Your task to perform on an android device: Go to Google maps Image 0: 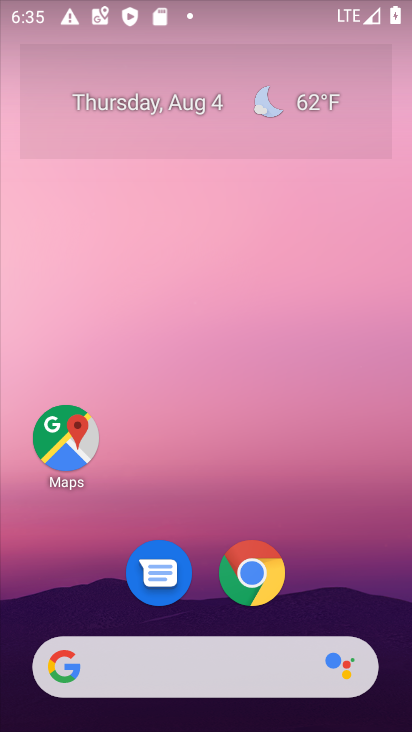
Step 0: click (55, 447)
Your task to perform on an android device: Go to Google maps Image 1: 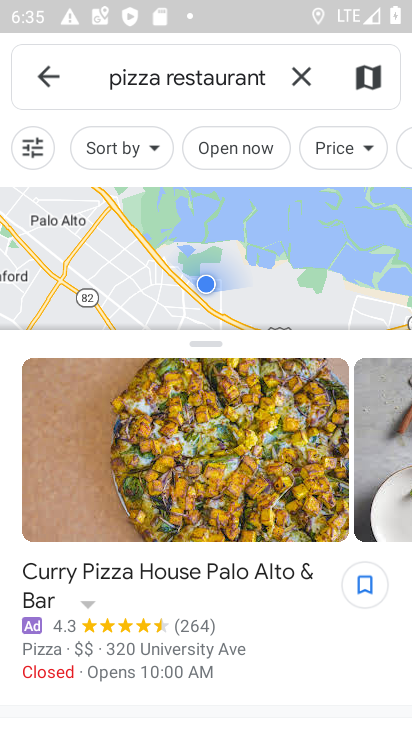
Step 1: click (41, 74)
Your task to perform on an android device: Go to Google maps Image 2: 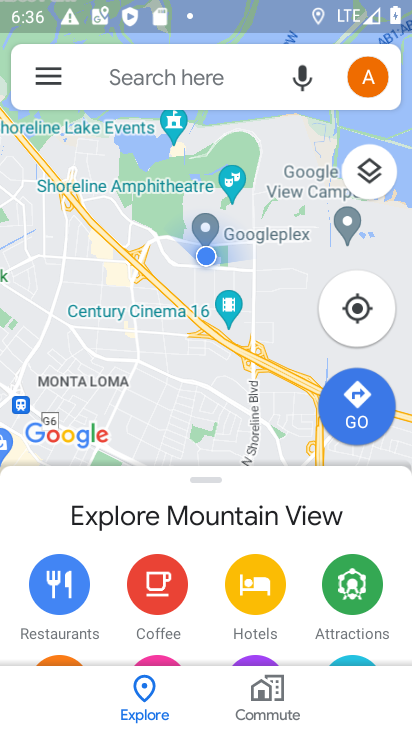
Step 2: task complete